Your task to perform on an android device: Open Google Chrome and open the bookmarks view Image 0: 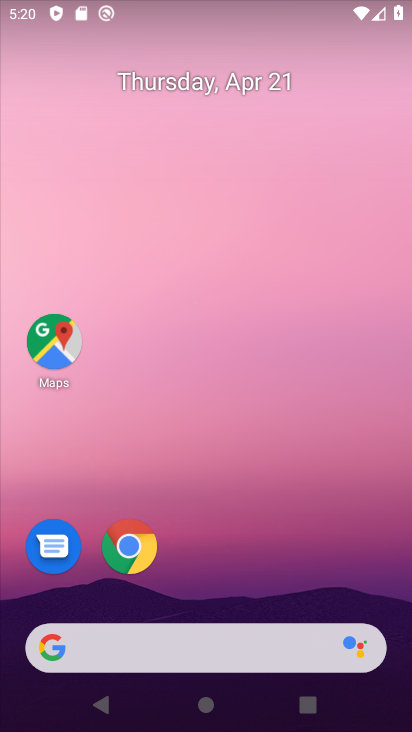
Step 0: click (125, 542)
Your task to perform on an android device: Open Google Chrome and open the bookmarks view Image 1: 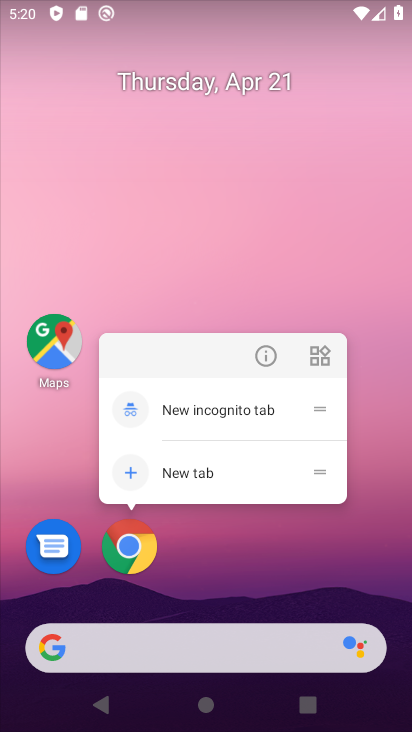
Step 1: click (130, 559)
Your task to perform on an android device: Open Google Chrome and open the bookmarks view Image 2: 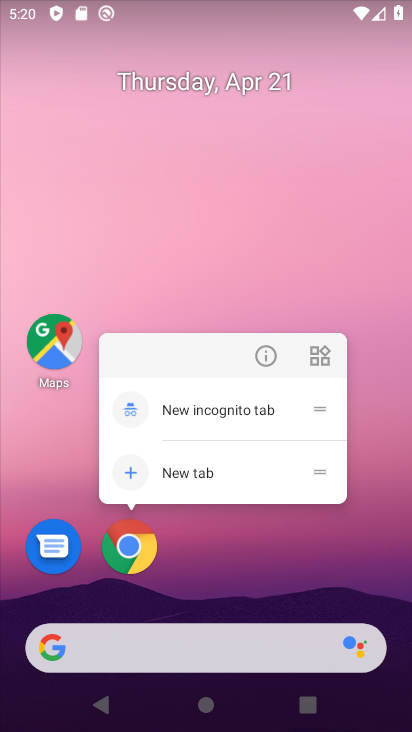
Step 2: click (130, 559)
Your task to perform on an android device: Open Google Chrome and open the bookmarks view Image 3: 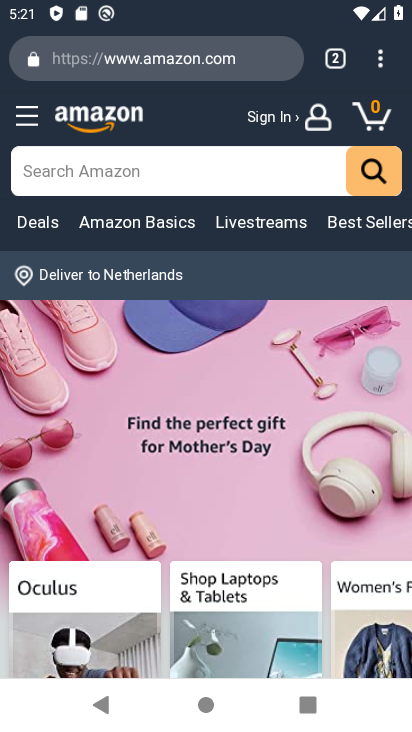
Step 3: click (385, 63)
Your task to perform on an android device: Open Google Chrome and open the bookmarks view Image 4: 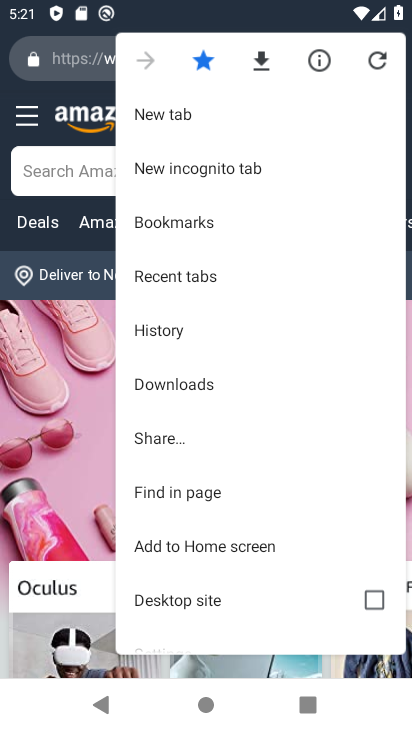
Step 4: click (179, 422)
Your task to perform on an android device: Open Google Chrome and open the bookmarks view Image 5: 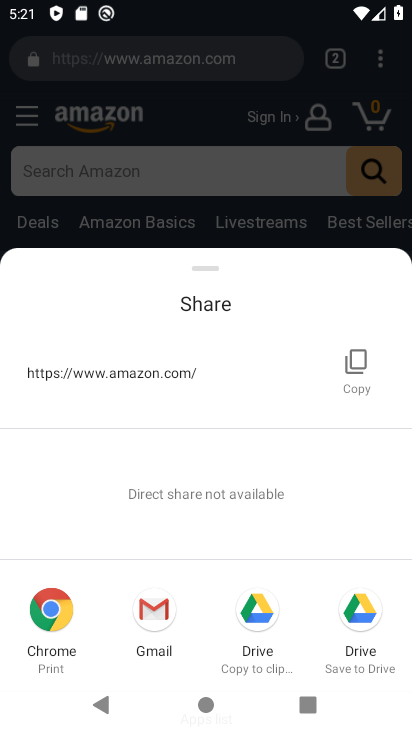
Step 5: click (323, 221)
Your task to perform on an android device: Open Google Chrome and open the bookmarks view Image 6: 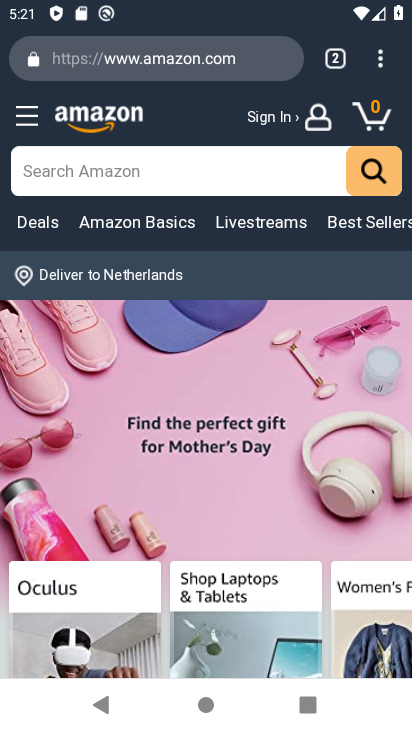
Step 6: click (381, 65)
Your task to perform on an android device: Open Google Chrome and open the bookmarks view Image 7: 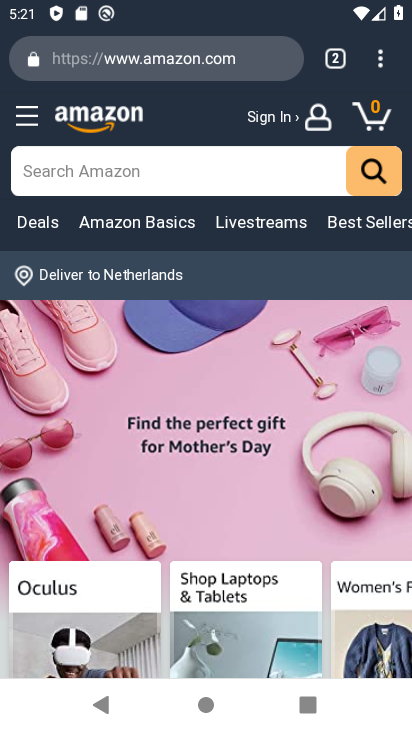
Step 7: click (380, 62)
Your task to perform on an android device: Open Google Chrome and open the bookmarks view Image 8: 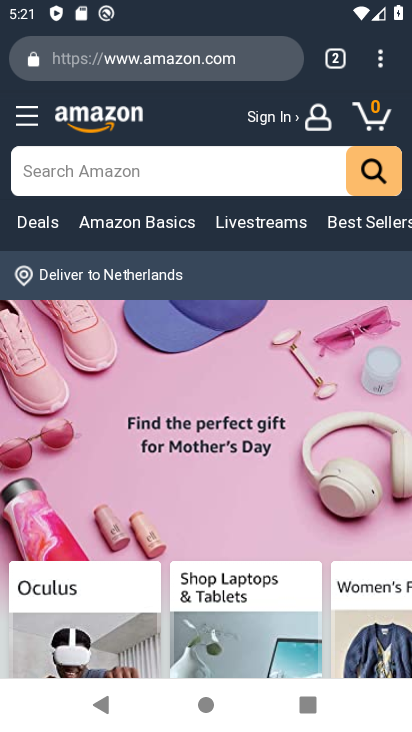
Step 8: click (381, 57)
Your task to perform on an android device: Open Google Chrome and open the bookmarks view Image 9: 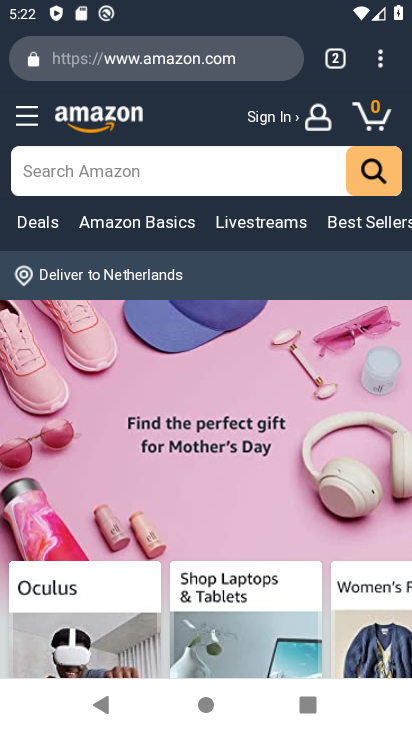
Step 9: click (382, 59)
Your task to perform on an android device: Open Google Chrome and open the bookmarks view Image 10: 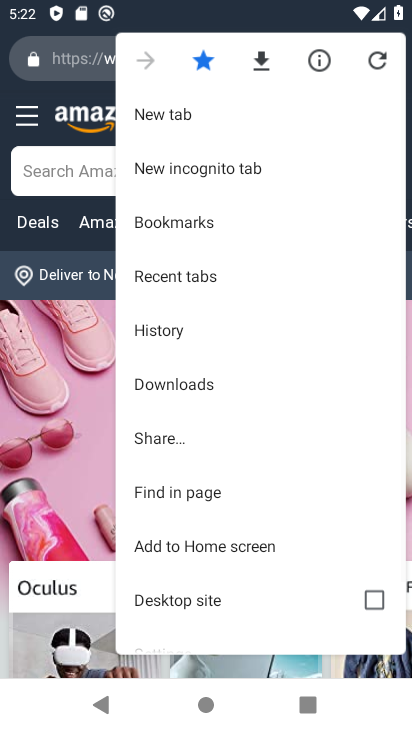
Step 10: drag from (229, 382) to (229, 261)
Your task to perform on an android device: Open Google Chrome and open the bookmarks view Image 11: 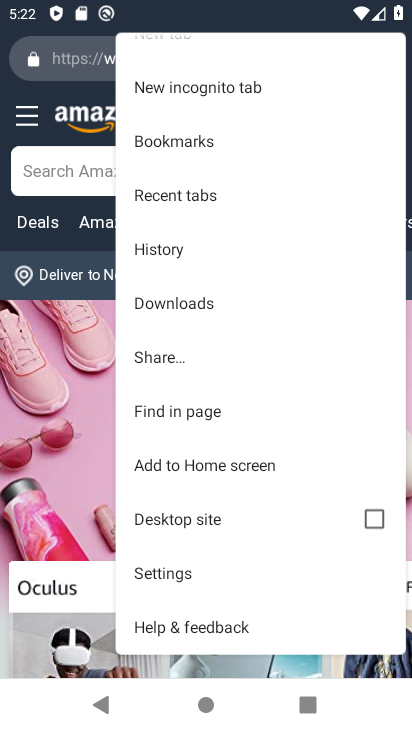
Step 11: click (197, 139)
Your task to perform on an android device: Open Google Chrome and open the bookmarks view Image 12: 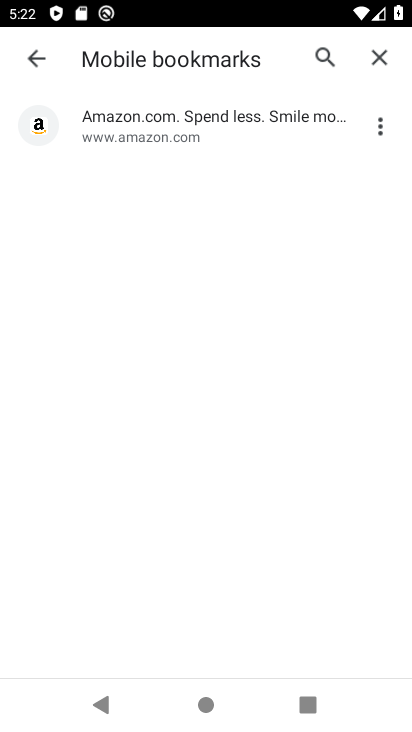
Step 12: task complete